Your task to perform on an android device: toggle sleep mode Image 0: 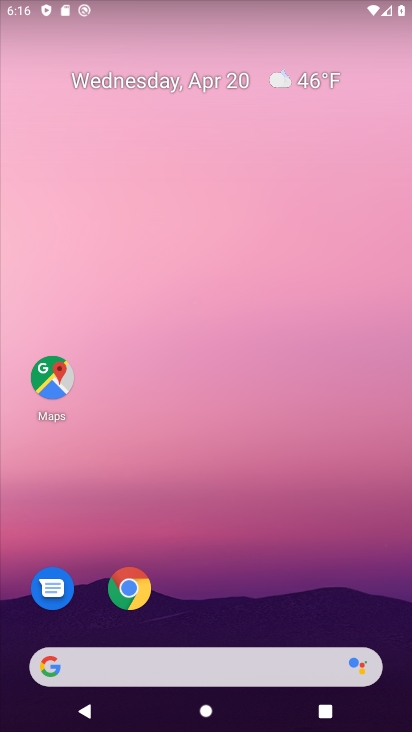
Step 0: drag from (307, 614) to (299, 95)
Your task to perform on an android device: toggle sleep mode Image 1: 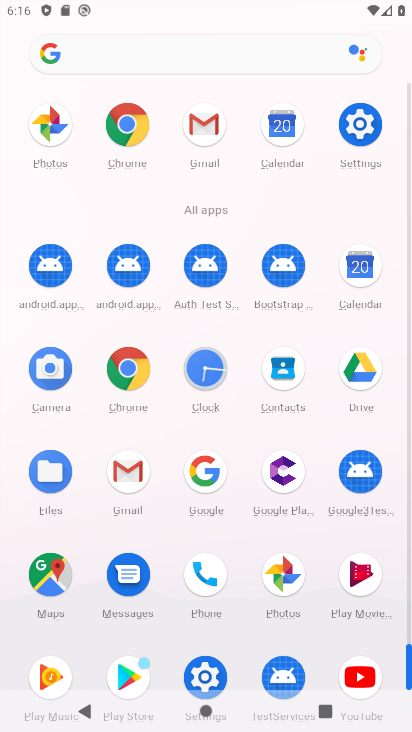
Step 1: click (194, 670)
Your task to perform on an android device: toggle sleep mode Image 2: 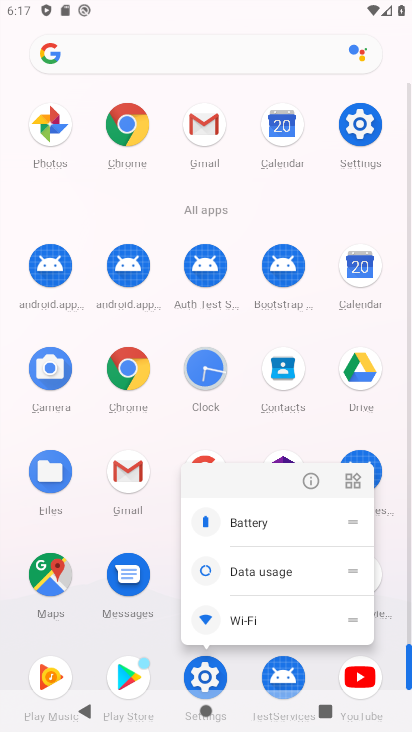
Step 2: click (199, 668)
Your task to perform on an android device: toggle sleep mode Image 3: 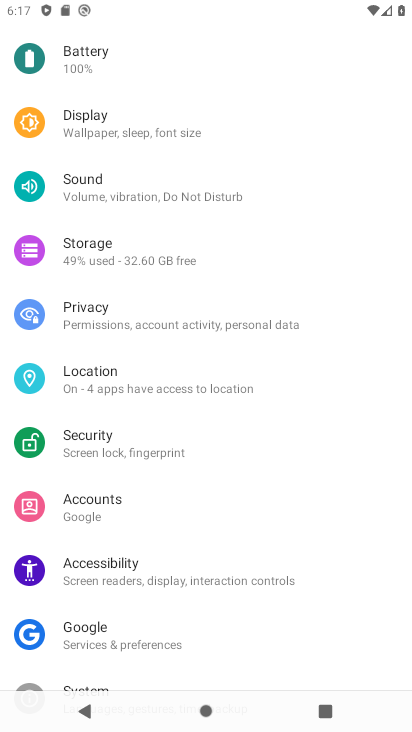
Step 3: click (36, 120)
Your task to perform on an android device: toggle sleep mode Image 4: 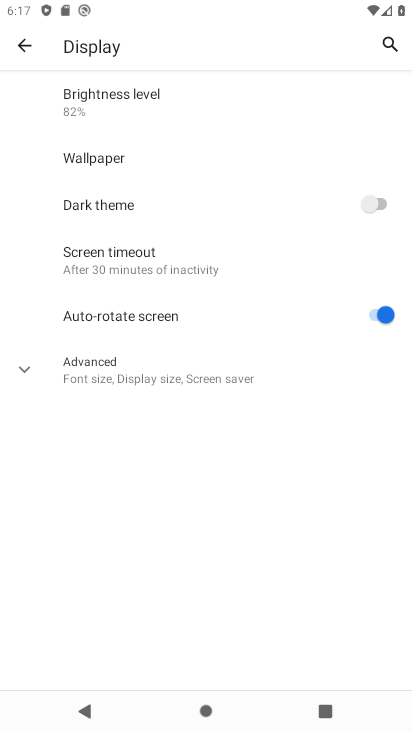
Step 4: task complete